Your task to perform on an android device: turn pop-ups off in chrome Image 0: 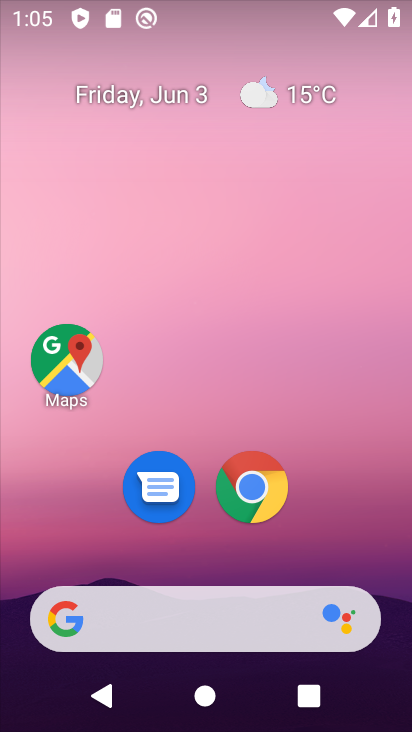
Step 0: click (238, 505)
Your task to perform on an android device: turn pop-ups off in chrome Image 1: 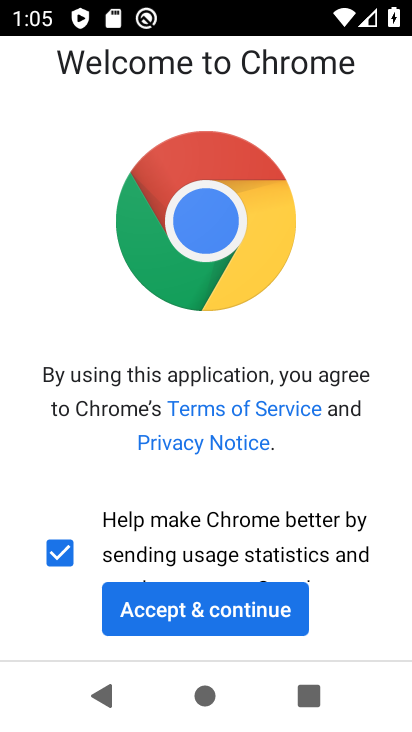
Step 1: click (227, 605)
Your task to perform on an android device: turn pop-ups off in chrome Image 2: 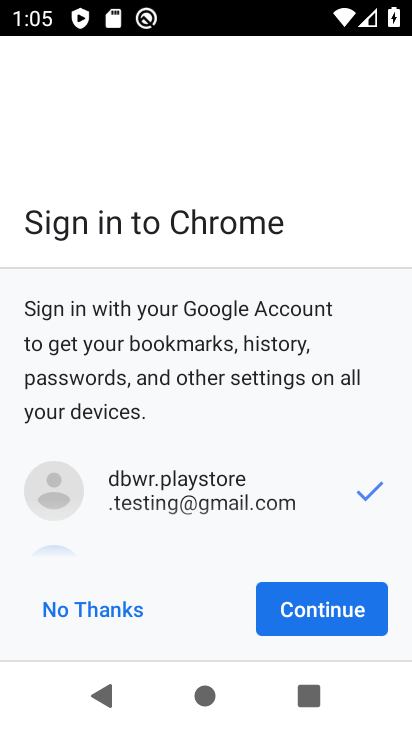
Step 2: click (296, 614)
Your task to perform on an android device: turn pop-ups off in chrome Image 3: 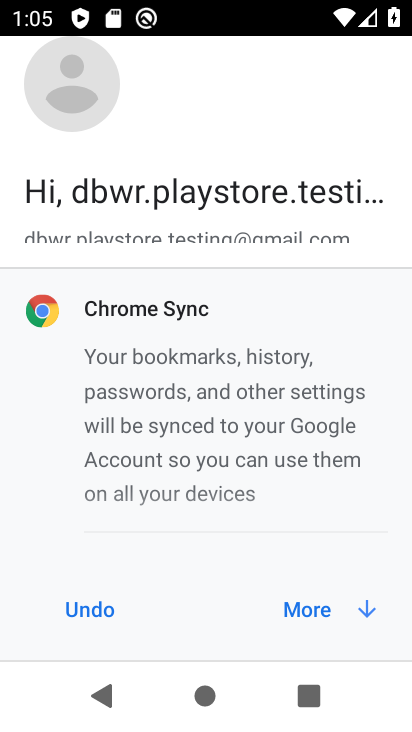
Step 3: click (347, 615)
Your task to perform on an android device: turn pop-ups off in chrome Image 4: 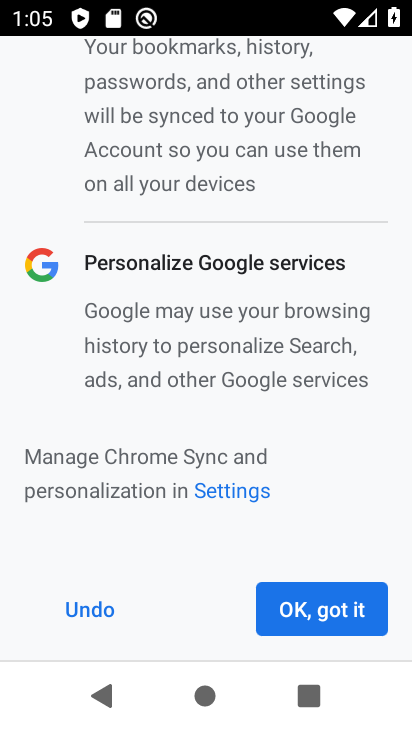
Step 4: click (358, 601)
Your task to perform on an android device: turn pop-ups off in chrome Image 5: 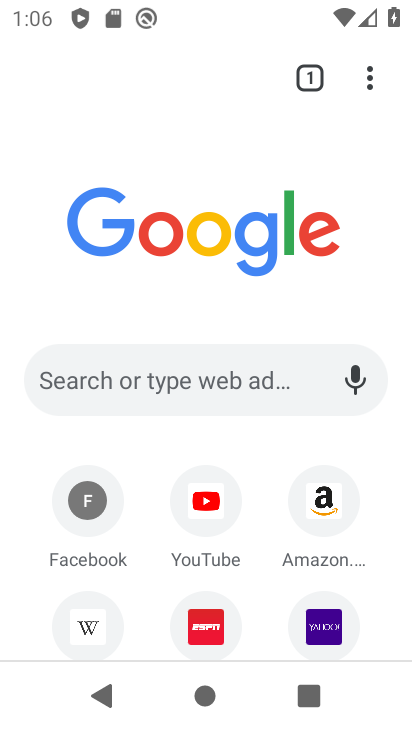
Step 5: click (371, 83)
Your task to perform on an android device: turn pop-ups off in chrome Image 6: 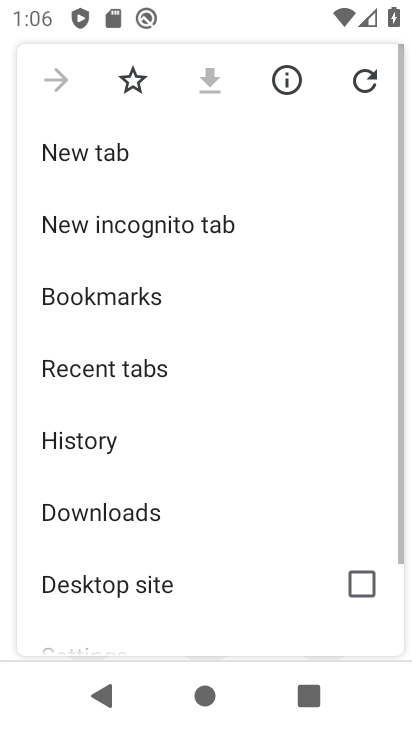
Step 6: drag from (226, 559) to (185, 249)
Your task to perform on an android device: turn pop-ups off in chrome Image 7: 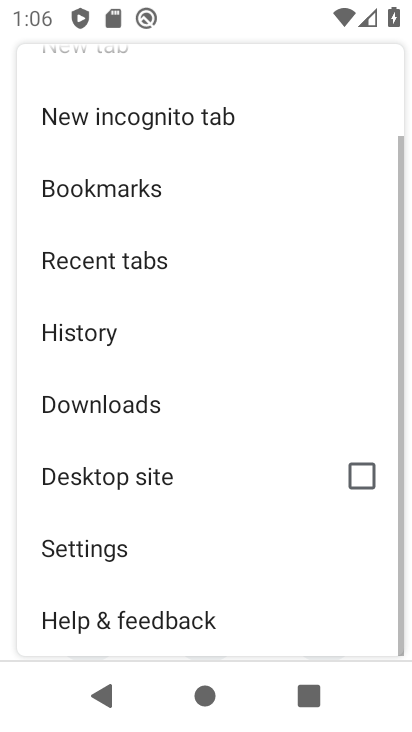
Step 7: click (110, 551)
Your task to perform on an android device: turn pop-ups off in chrome Image 8: 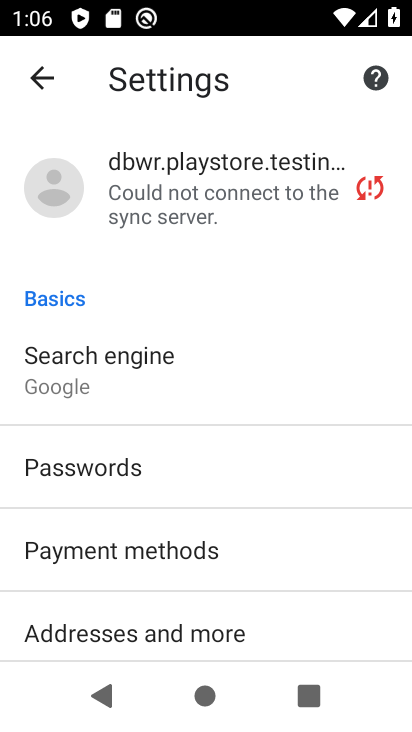
Step 8: drag from (280, 546) to (326, 225)
Your task to perform on an android device: turn pop-ups off in chrome Image 9: 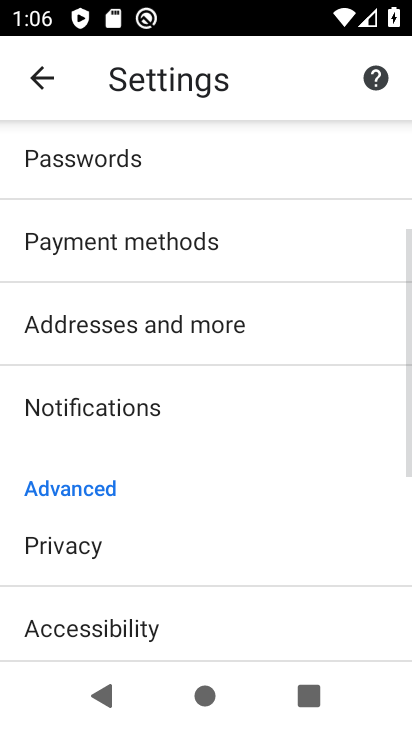
Step 9: drag from (293, 567) to (284, 138)
Your task to perform on an android device: turn pop-ups off in chrome Image 10: 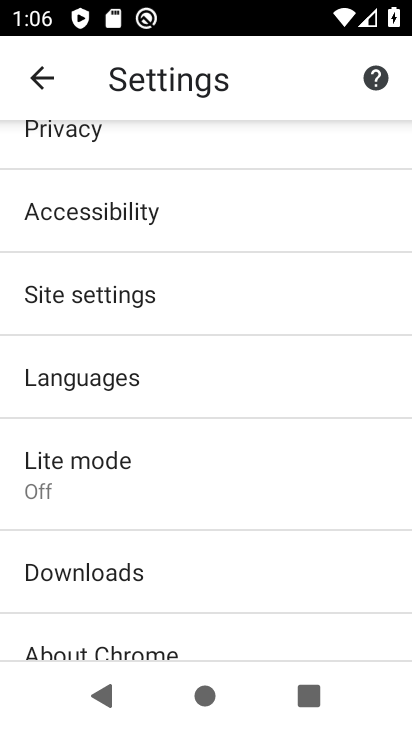
Step 10: drag from (232, 533) to (220, 294)
Your task to perform on an android device: turn pop-ups off in chrome Image 11: 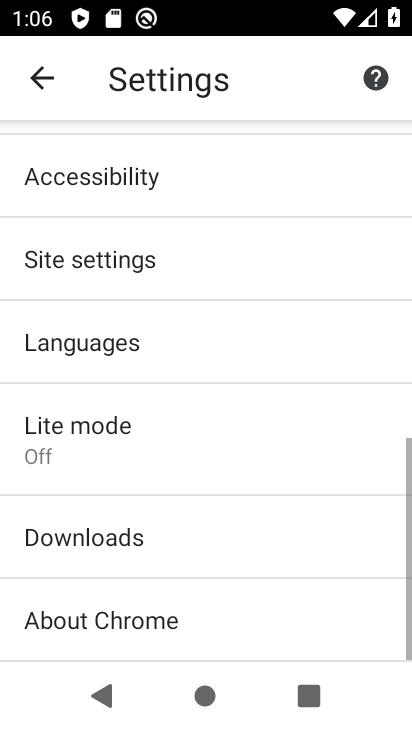
Step 11: click (123, 263)
Your task to perform on an android device: turn pop-ups off in chrome Image 12: 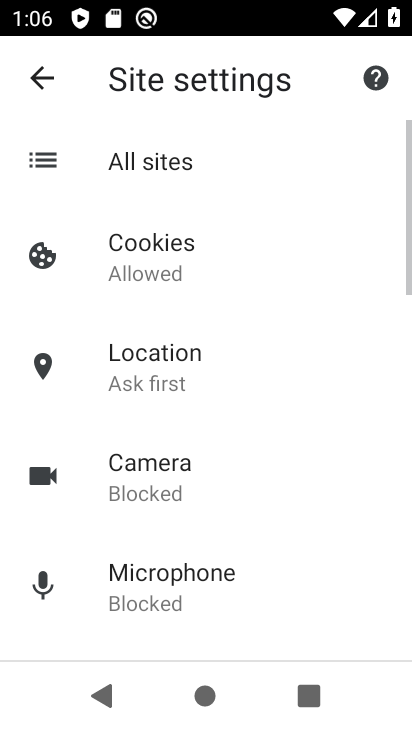
Step 12: drag from (266, 586) to (291, 202)
Your task to perform on an android device: turn pop-ups off in chrome Image 13: 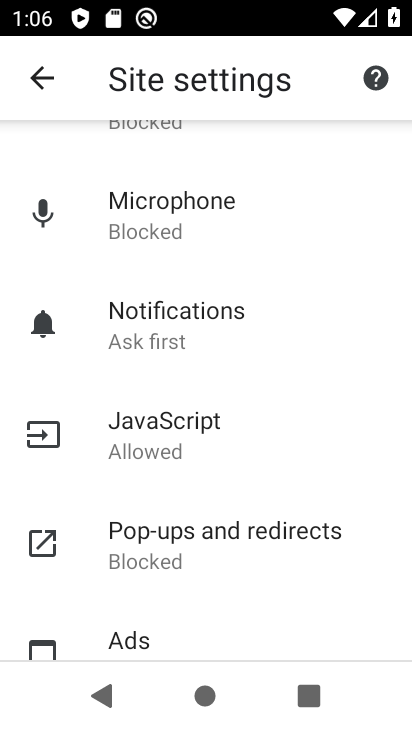
Step 13: click (185, 533)
Your task to perform on an android device: turn pop-ups off in chrome Image 14: 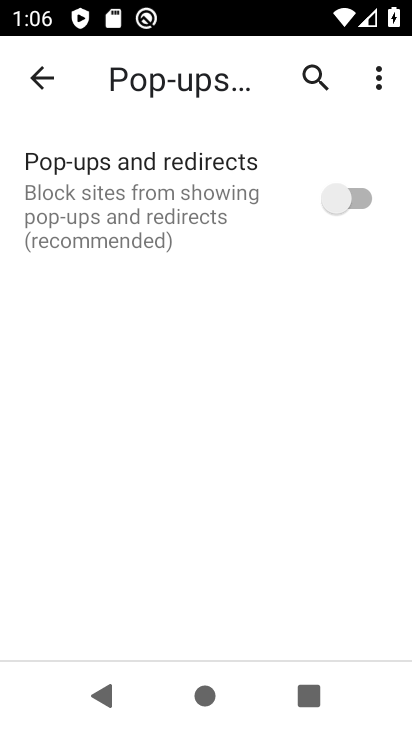
Step 14: task complete